Your task to perform on an android device: Go to Google Image 0: 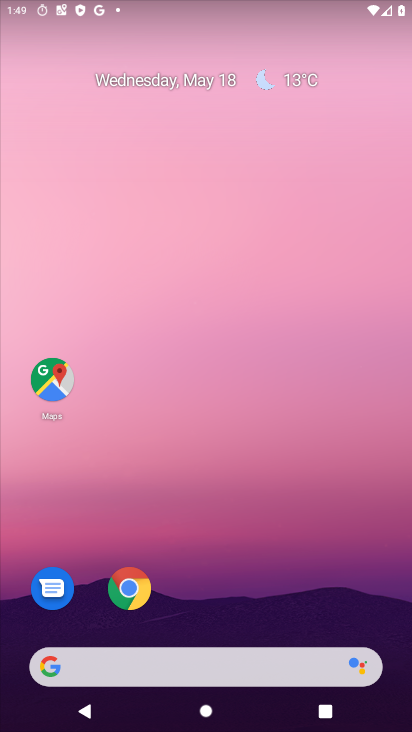
Step 0: drag from (191, 492) to (302, 70)
Your task to perform on an android device: Go to Google Image 1: 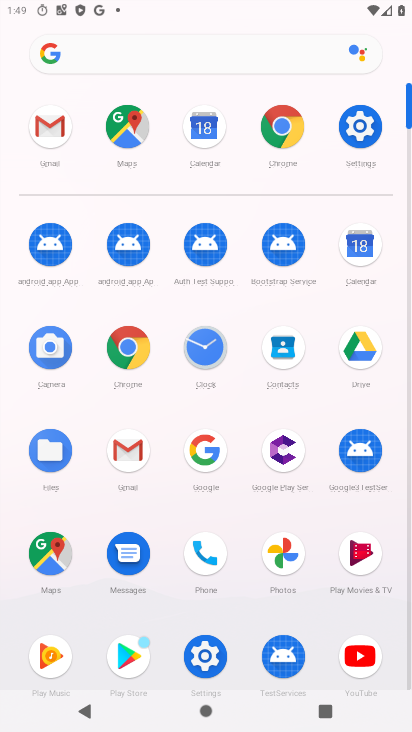
Step 1: click (194, 446)
Your task to perform on an android device: Go to Google Image 2: 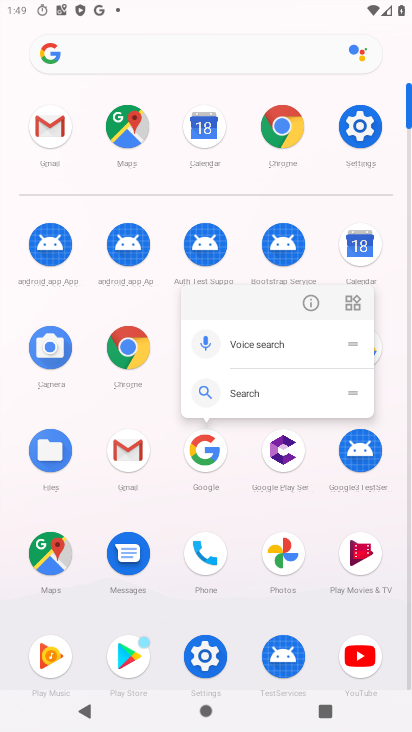
Step 2: click (305, 306)
Your task to perform on an android device: Go to Google Image 3: 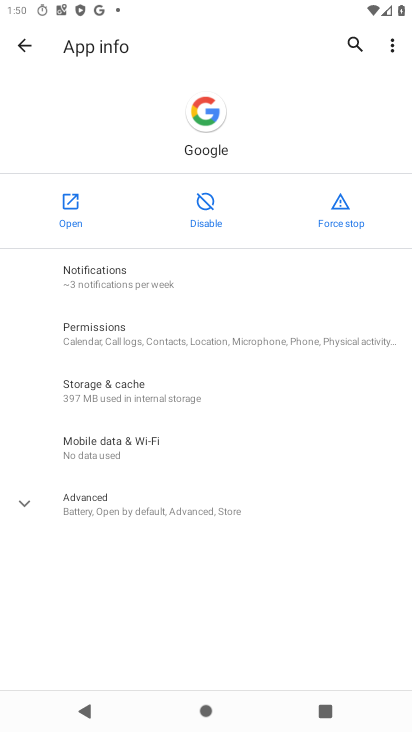
Step 3: click (48, 211)
Your task to perform on an android device: Go to Google Image 4: 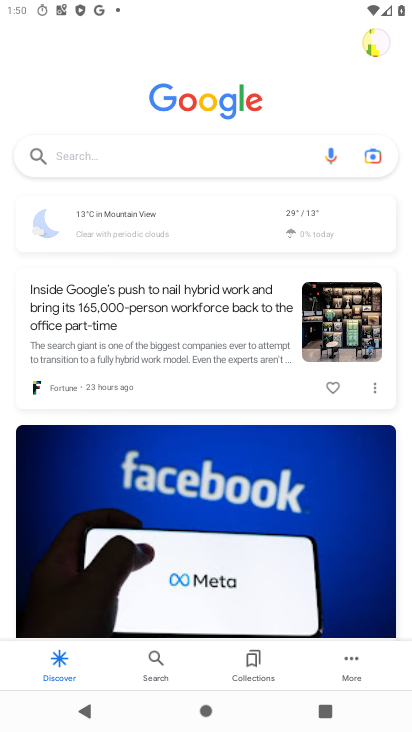
Step 4: task complete